Your task to perform on an android device: Open Google Image 0: 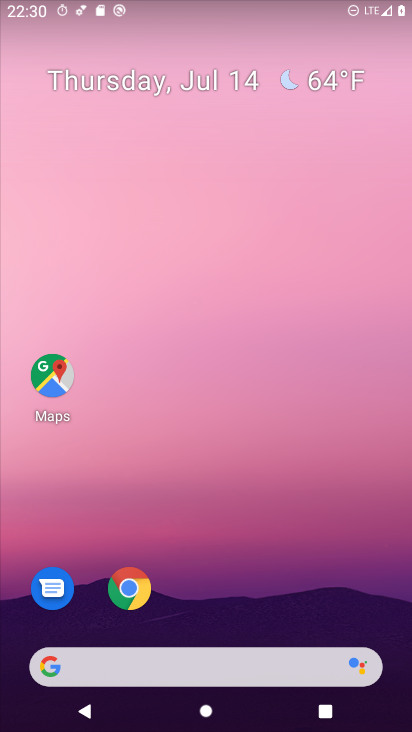
Step 0: drag from (292, 619) to (312, 239)
Your task to perform on an android device: Open Google Image 1: 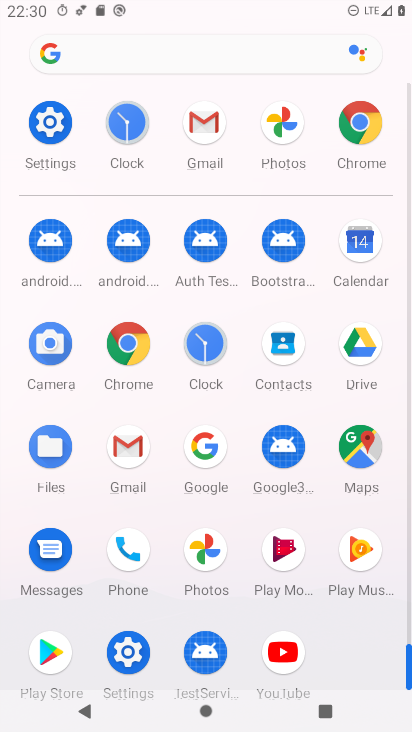
Step 1: click (202, 446)
Your task to perform on an android device: Open Google Image 2: 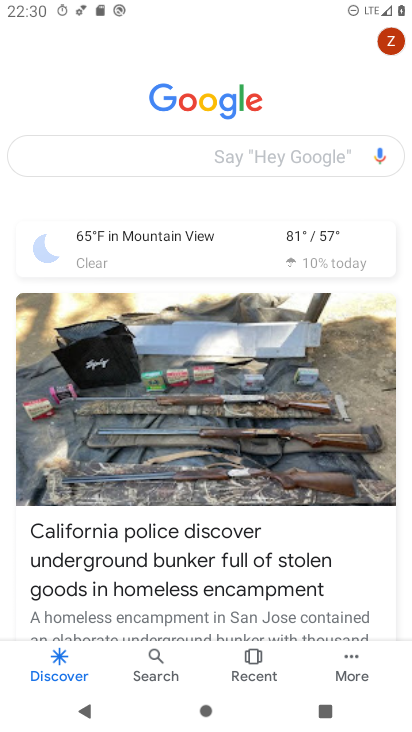
Step 2: task complete